Your task to perform on an android device: Open Android settings Image 0: 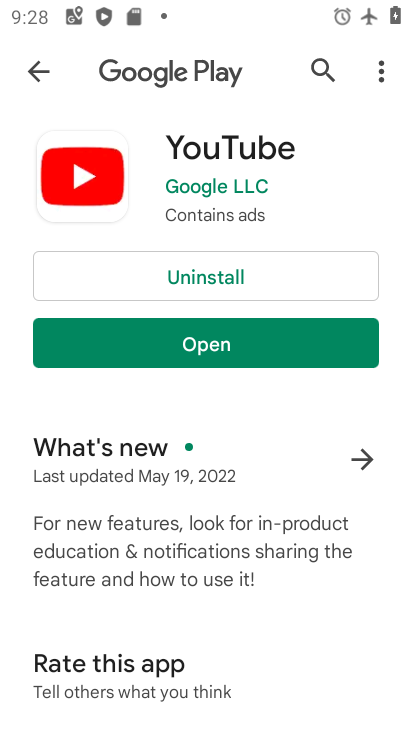
Step 0: press home button
Your task to perform on an android device: Open Android settings Image 1: 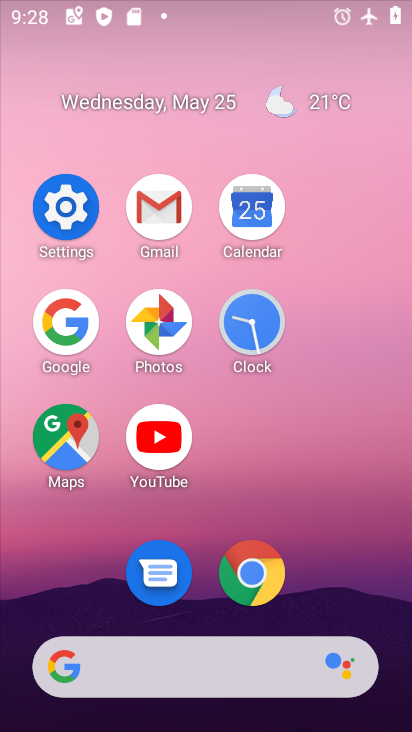
Step 1: click (88, 202)
Your task to perform on an android device: Open Android settings Image 2: 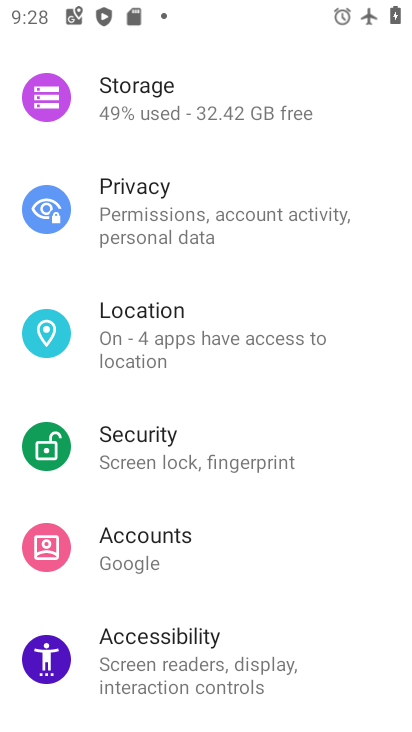
Step 2: task complete